Your task to perform on an android device: Open Wikipedia Image 0: 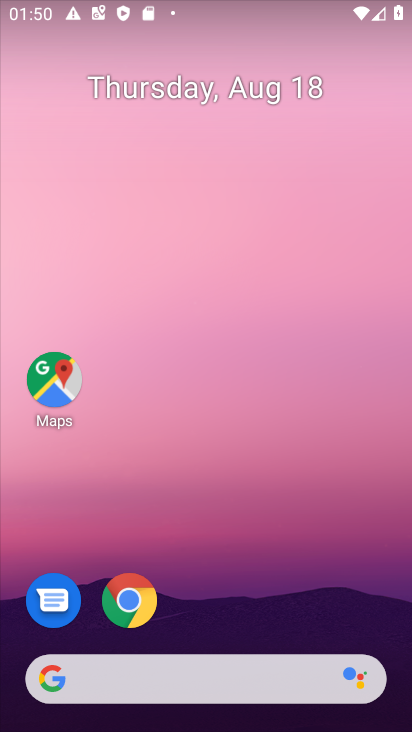
Step 0: press home button
Your task to perform on an android device: Open Wikipedia Image 1: 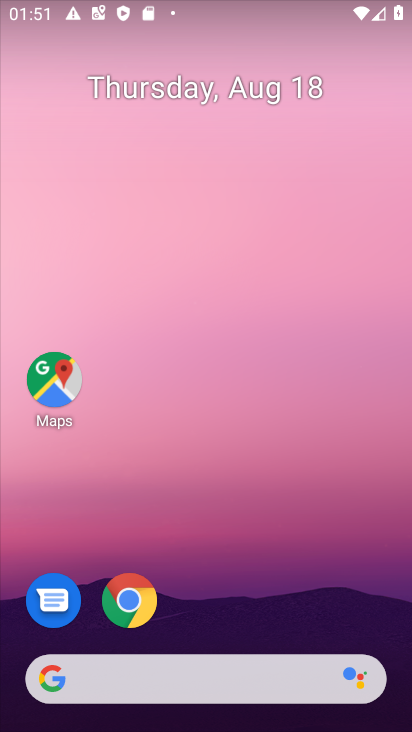
Step 1: click (53, 675)
Your task to perform on an android device: Open Wikipedia Image 2: 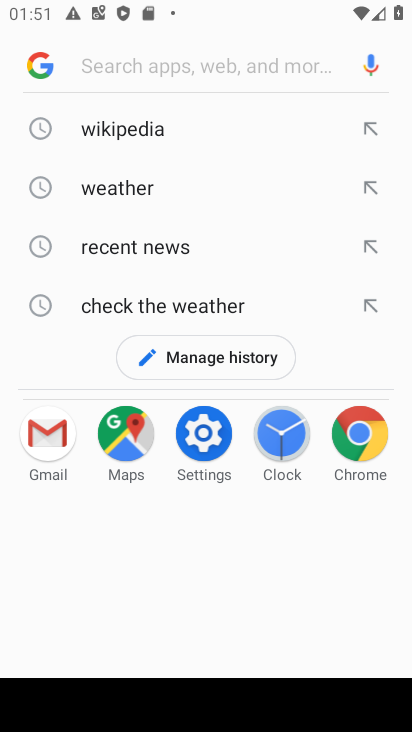
Step 2: click (110, 129)
Your task to perform on an android device: Open Wikipedia Image 3: 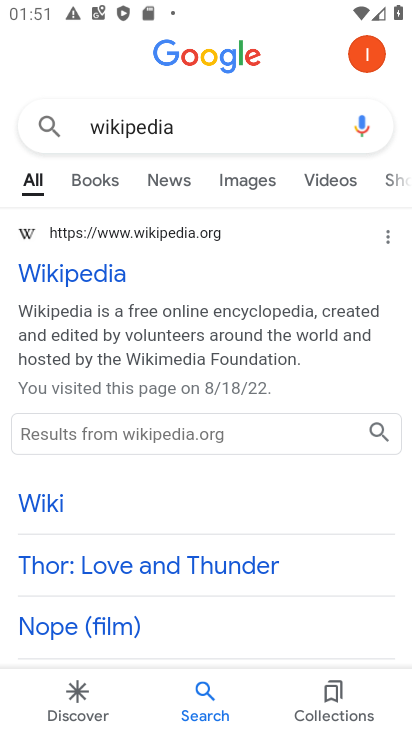
Step 3: click (70, 271)
Your task to perform on an android device: Open Wikipedia Image 4: 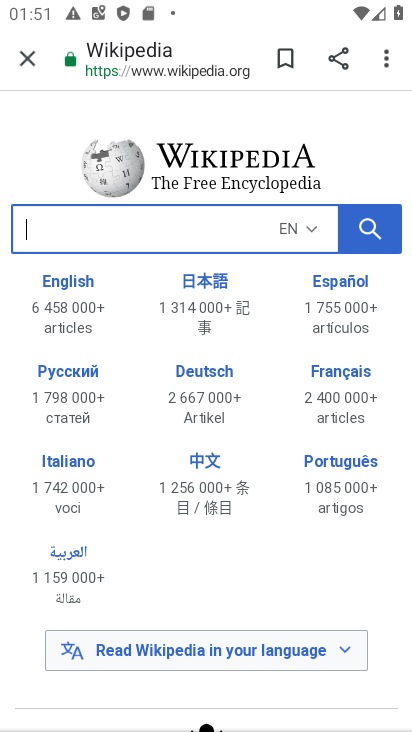
Step 4: task complete